Your task to perform on an android device: Open the calendar app, open the side menu, and click the "Day" option Image 0: 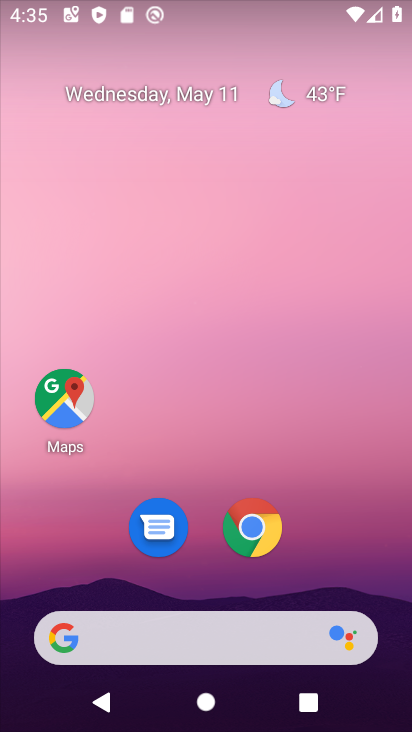
Step 0: drag from (150, 604) to (275, 216)
Your task to perform on an android device: Open the calendar app, open the side menu, and click the "Day" option Image 1: 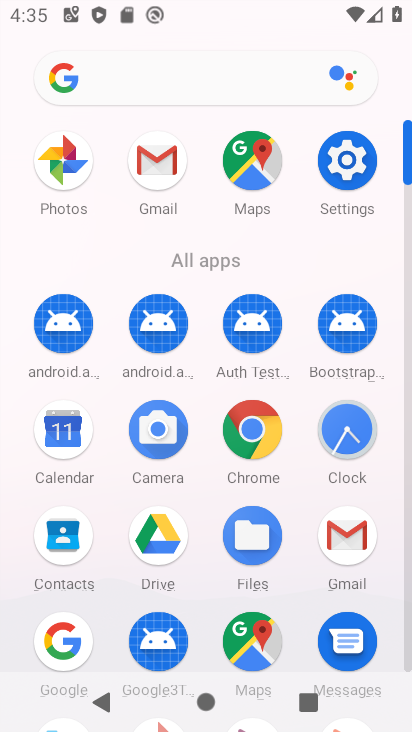
Step 1: click (81, 435)
Your task to perform on an android device: Open the calendar app, open the side menu, and click the "Day" option Image 2: 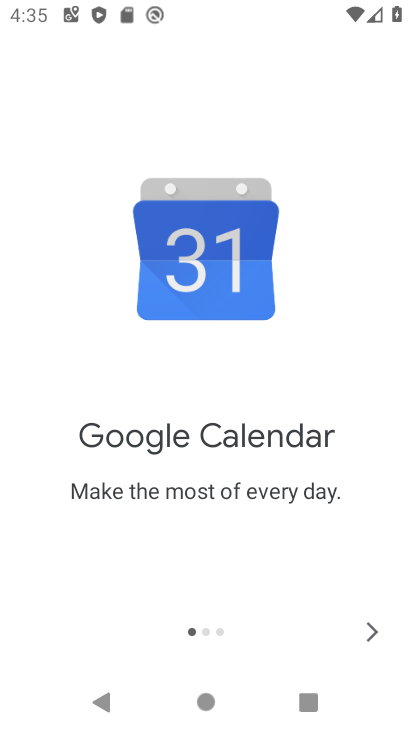
Step 2: click (383, 633)
Your task to perform on an android device: Open the calendar app, open the side menu, and click the "Day" option Image 3: 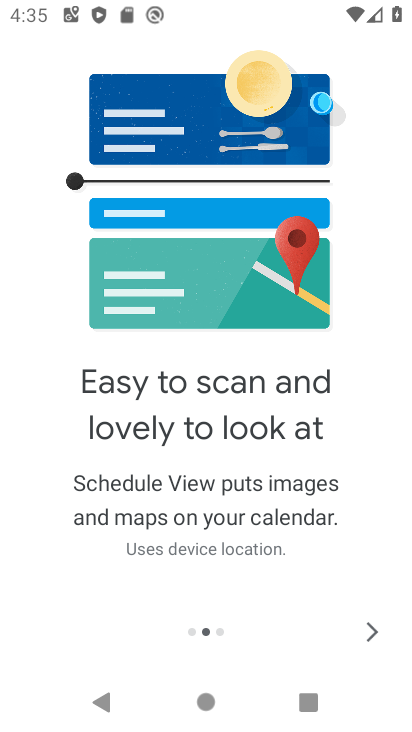
Step 3: click (383, 633)
Your task to perform on an android device: Open the calendar app, open the side menu, and click the "Day" option Image 4: 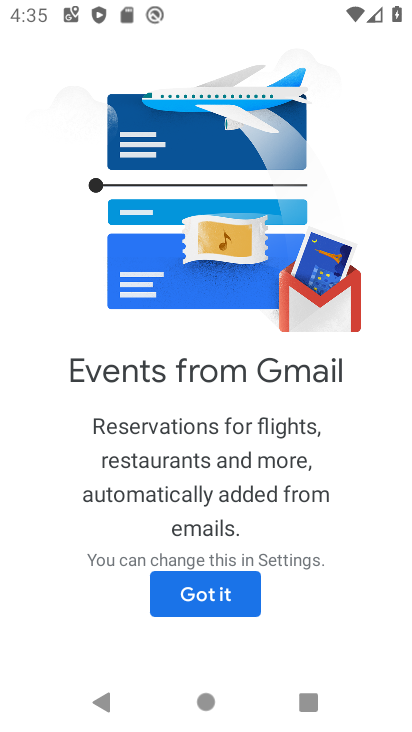
Step 4: click (205, 600)
Your task to perform on an android device: Open the calendar app, open the side menu, and click the "Day" option Image 5: 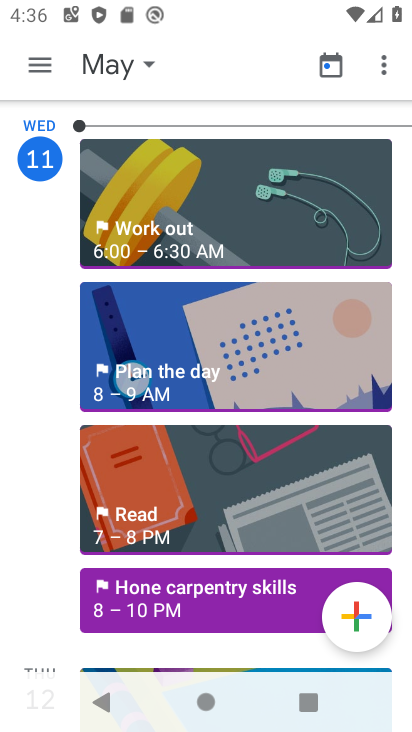
Step 5: click (51, 76)
Your task to perform on an android device: Open the calendar app, open the side menu, and click the "Day" option Image 6: 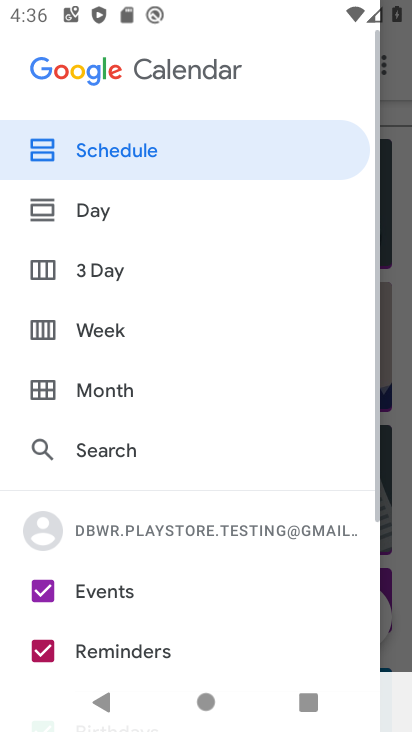
Step 6: click (134, 213)
Your task to perform on an android device: Open the calendar app, open the side menu, and click the "Day" option Image 7: 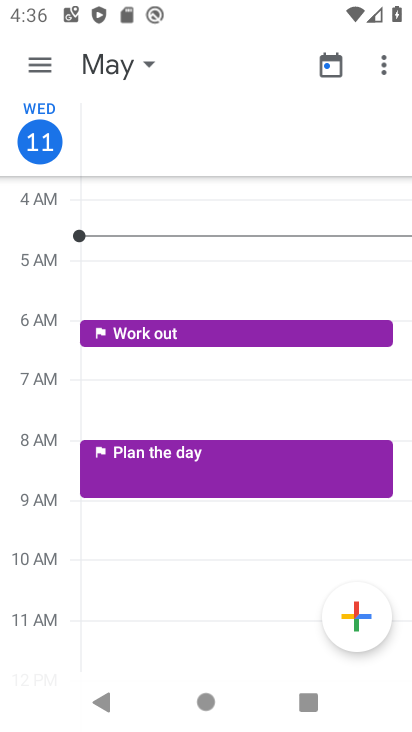
Step 7: task complete